Your task to perform on an android device: Go to settings Image 0: 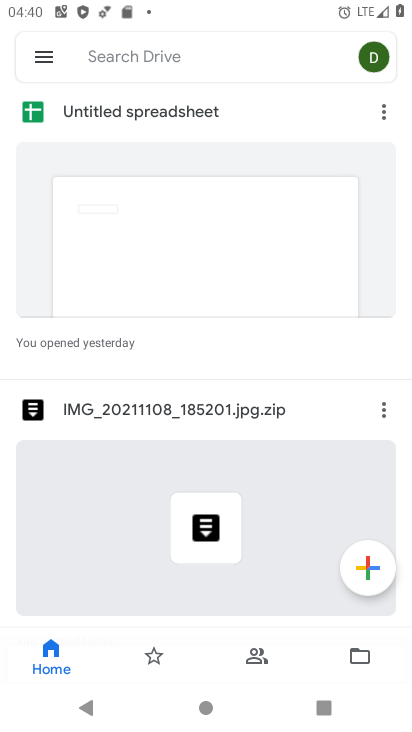
Step 0: press home button
Your task to perform on an android device: Go to settings Image 1: 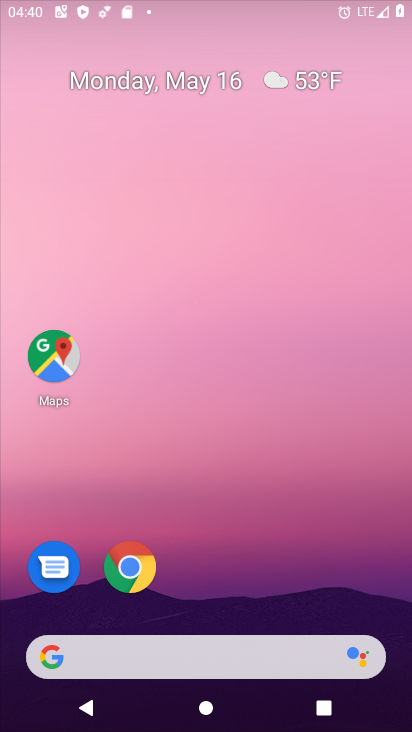
Step 1: drag from (154, 673) to (337, 0)
Your task to perform on an android device: Go to settings Image 2: 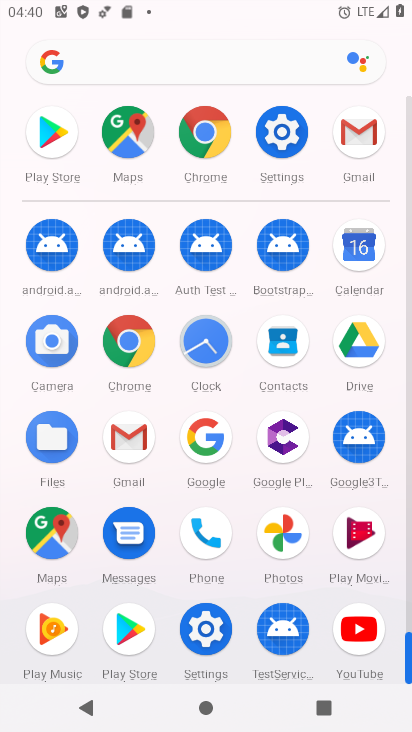
Step 2: click (304, 119)
Your task to perform on an android device: Go to settings Image 3: 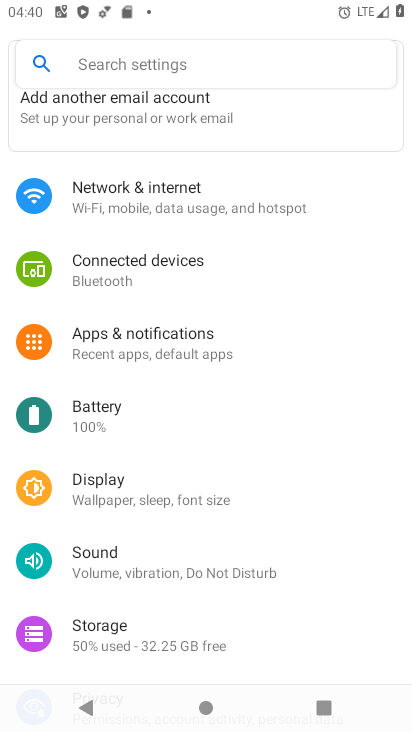
Step 3: task complete